Your task to perform on an android device: Go to accessibility settings Image 0: 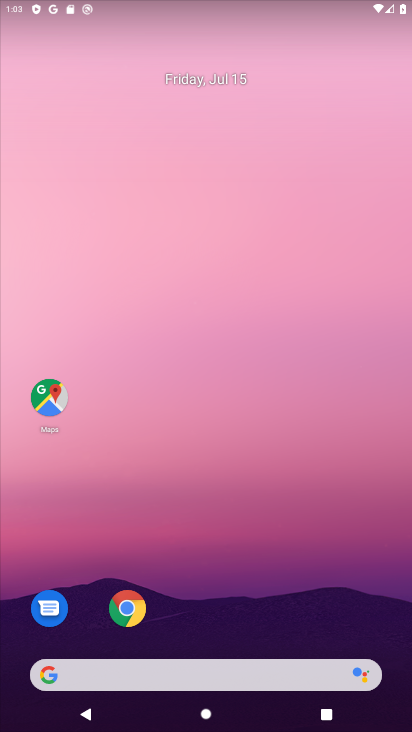
Step 0: drag from (129, 676) to (238, 33)
Your task to perform on an android device: Go to accessibility settings Image 1: 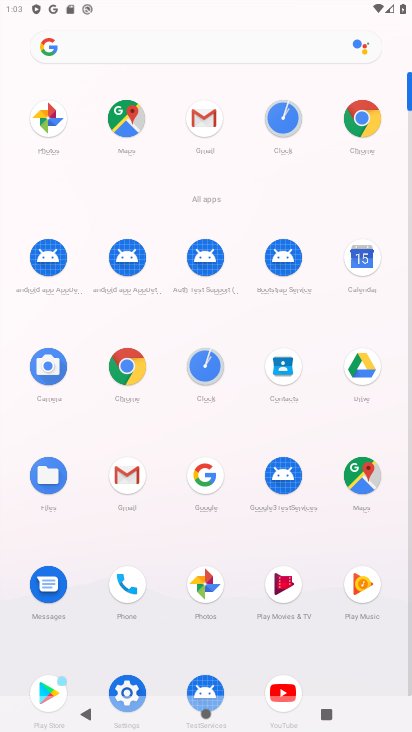
Step 1: click (130, 686)
Your task to perform on an android device: Go to accessibility settings Image 2: 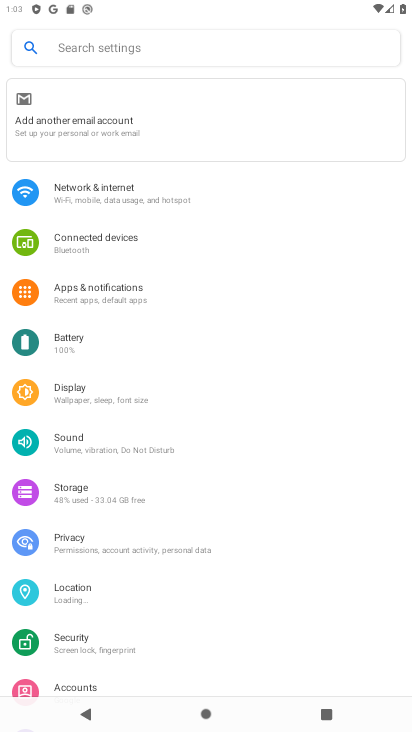
Step 2: drag from (247, 547) to (194, 17)
Your task to perform on an android device: Go to accessibility settings Image 3: 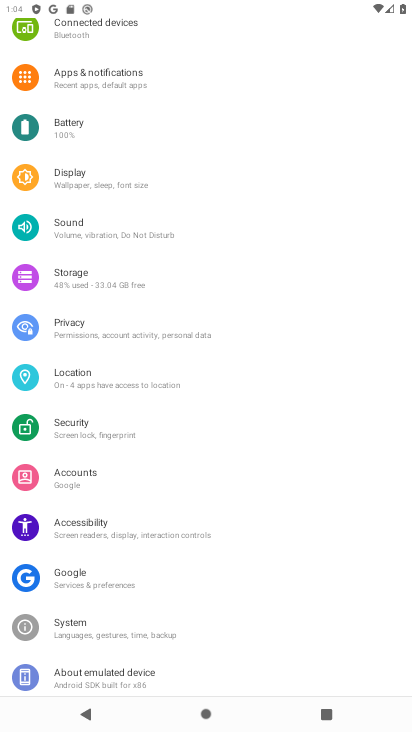
Step 3: click (97, 522)
Your task to perform on an android device: Go to accessibility settings Image 4: 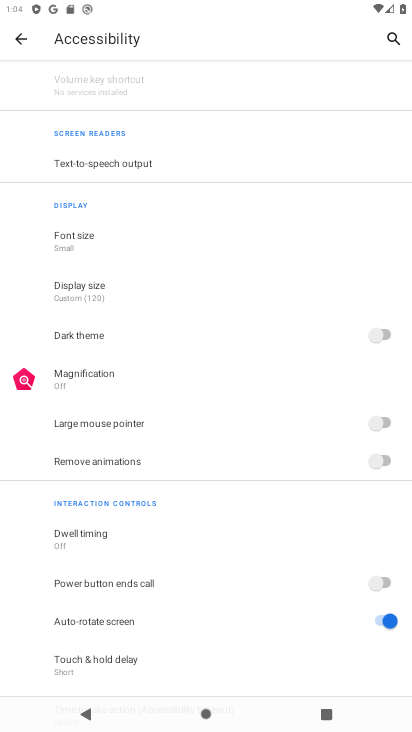
Step 4: task complete